Your task to perform on an android device: turn off priority inbox in the gmail app Image 0: 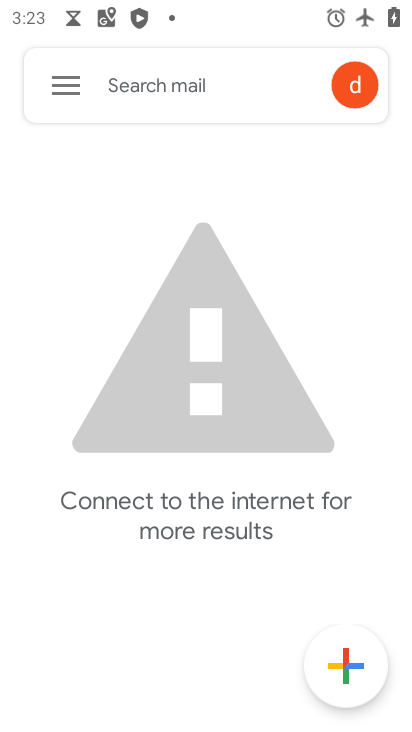
Step 0: press home button
Your task to perform on an android device: turn off priority inbox in the gmail app Image 1: 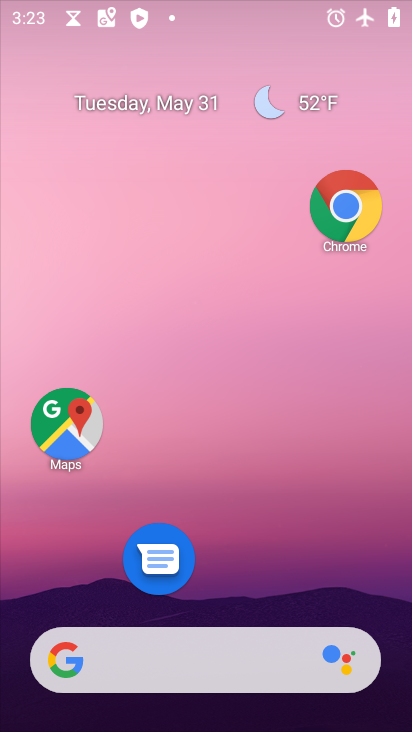
Step 1: drag from (222, 585) to (219, 21)
Your task to perform on an android device: turn off priority inbox in the gmail app Image 2: 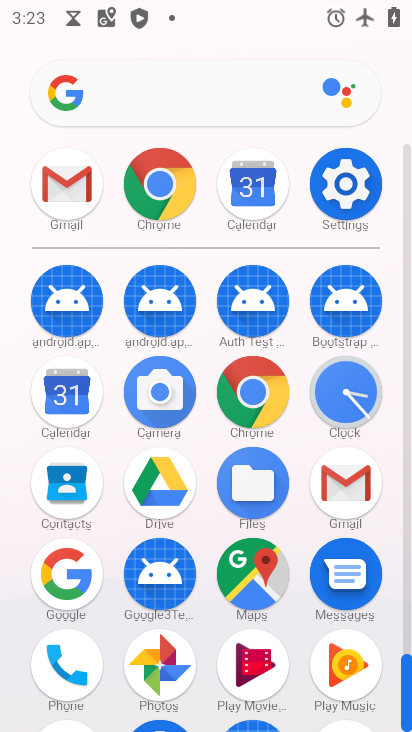
Step 2: click (353, 483)
Your task to perform on an android device: turn off priority inbox in the gmail app Image 3: 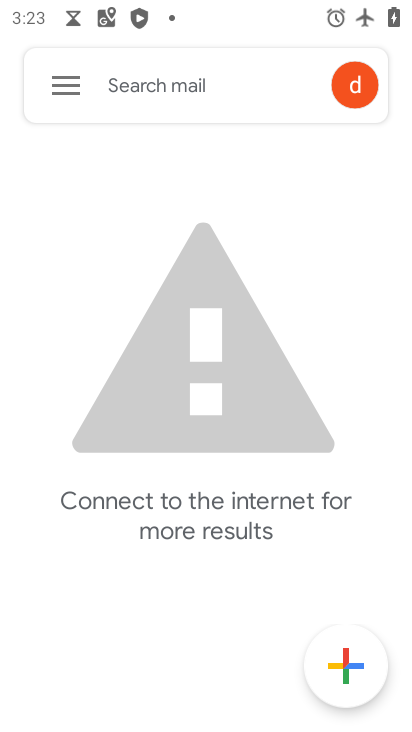
Step 3: click (61, 82)
Your task to perform on an android device: turn off priority inbox in the gmail app Image 4: 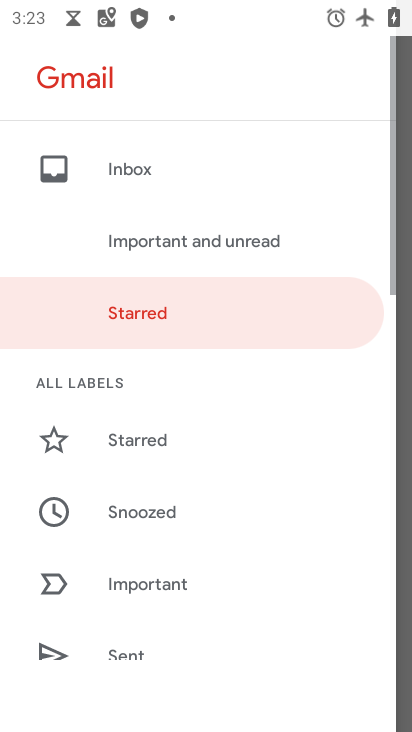
Step 4: drag from (190, 608) to (165, 224)
Your task to perform on an android device: turn off priority inbox in the gmail app Image 5: 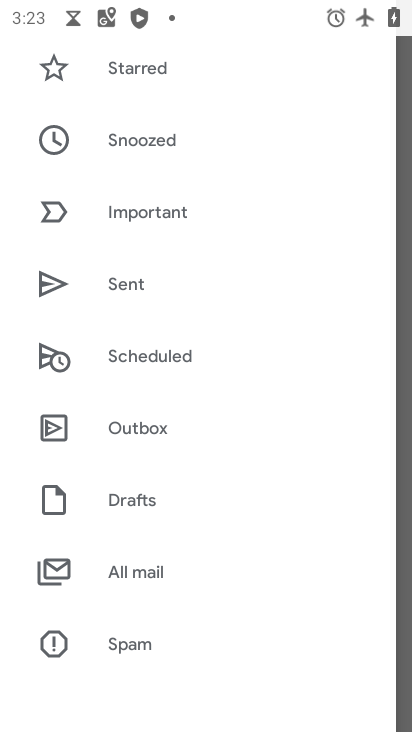
Step 5: drag from (186, 598) to (190, 321)
Your task to perform on an android device: turn off priority inbox in the gmail app Image 6: 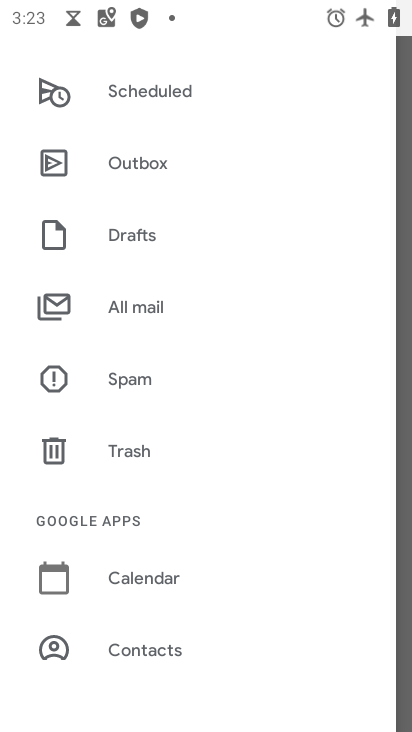
Step 6: drag from (229, 613) to (199, 465)
Your task to perform on an android device: turn off priority inbox in the gmail app Image 7: 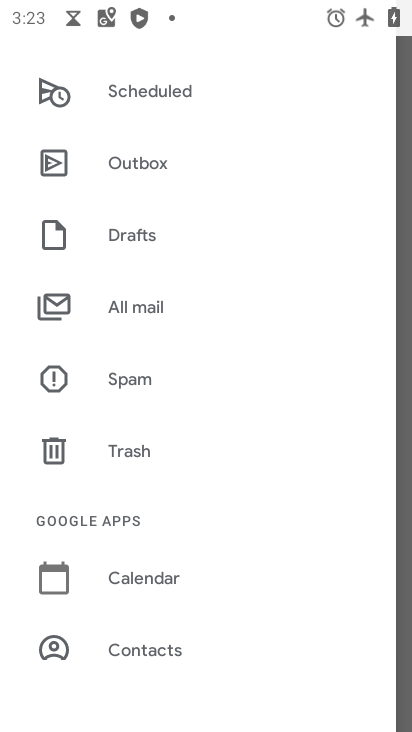
Step 7: drag from (165, 573) to (143, 278)
Your task to perform on an android device: turn off priority inbox in the gmail app Image 8: 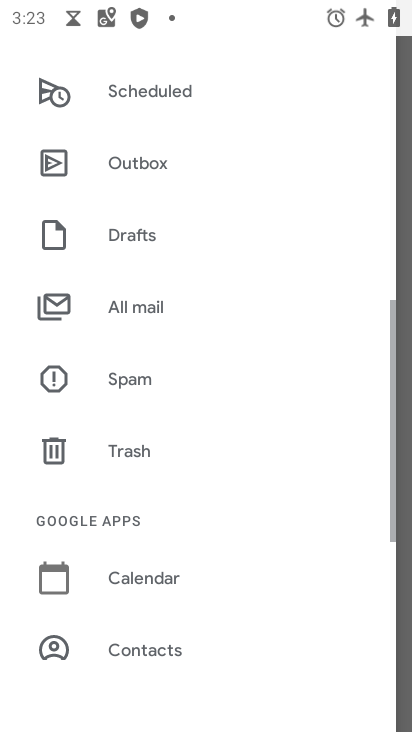
Step 8: drag from (176, 251) to (186, 547)
Your task to perform on an android device: turn off priority inbox in the gmail app Image 9: 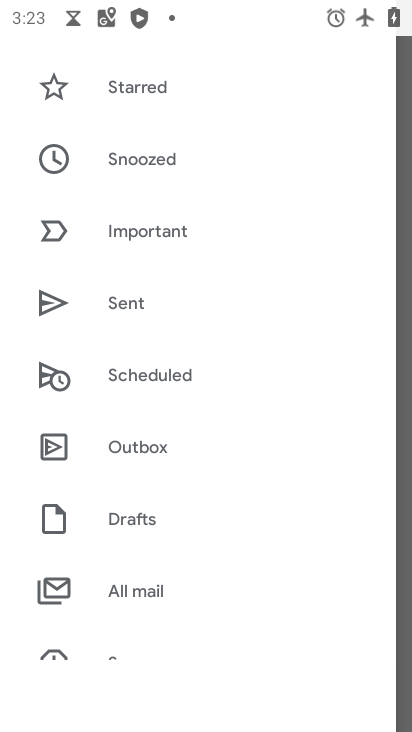
Step 9: drag from (206, 585) to (196, 216)
Your task to perform on an android device: turn off priority inbox in the gmail app Image 10: 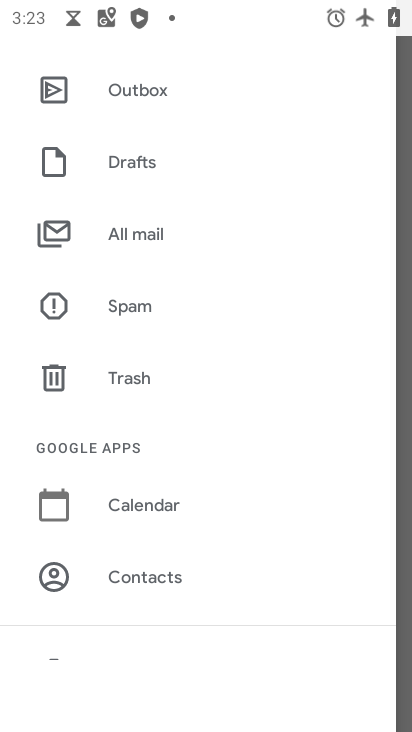
Step 10: drag from (246, 532) to (211, 230)
Your task to perform on an android device: turn off priority inbox in the gmail app Image 11: 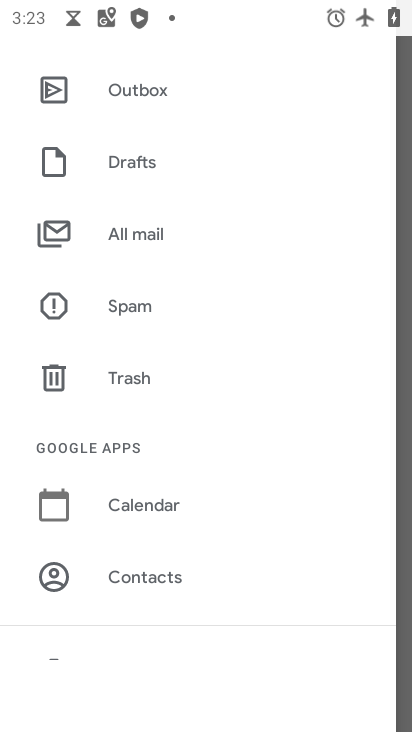
Step 11: drag from (114, 571) to (178, 164)
Your task to perform on an android device: turn off priority inbox in the gmail app Image 12: 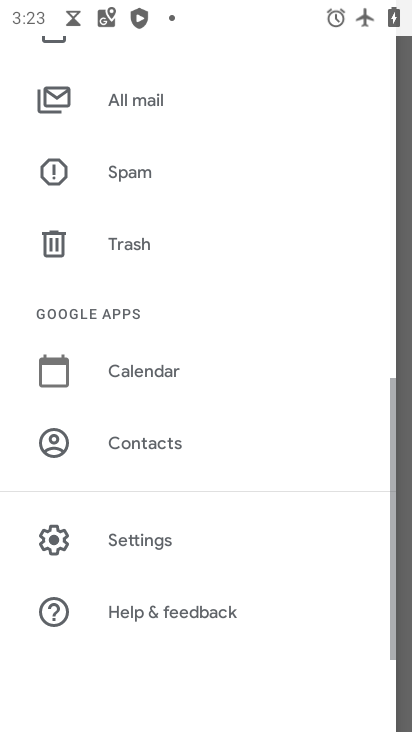
Step 12: click (184, 532)
Your task to perform on an android device: turn off priority inbox in the gmail app Image 13: 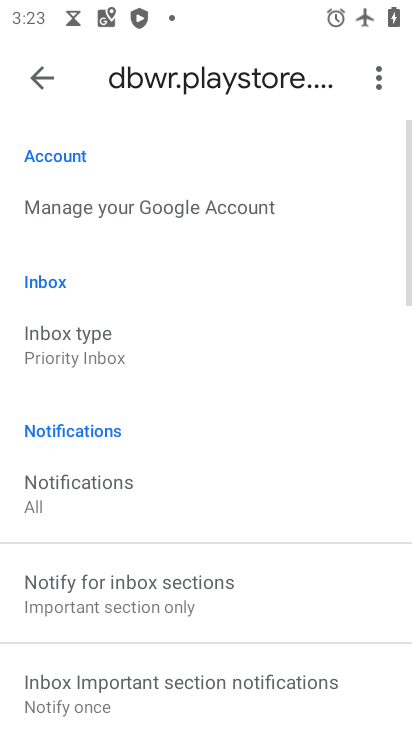
Step 13: click (197, 364)
Your task to perform on an android device: turn off priority inbox in the gmail app Image 14: 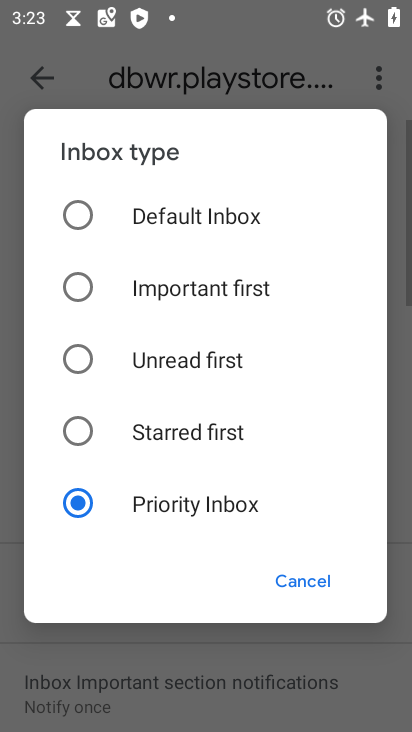
Step 14: click (193, 218)
Your task to perform on an android device: turn off priority inbox in the gmail app Image 15: 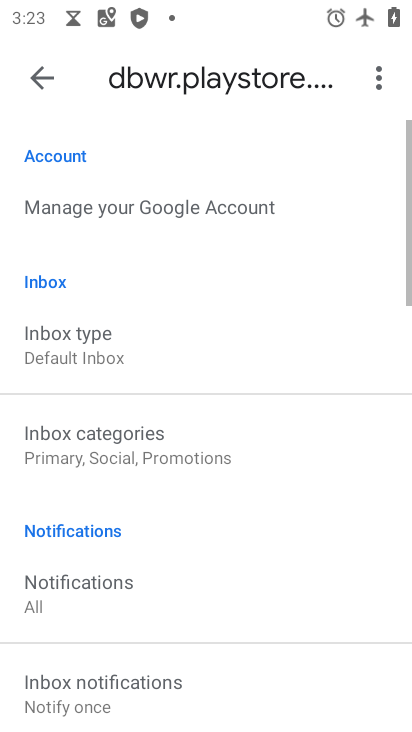
Step 15: task complete